Your task to perform on an android device: Go to internet settings Image 0: 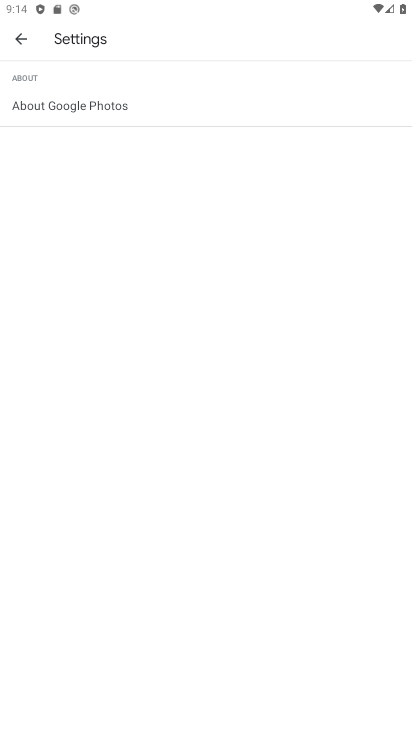
Step 0: press home button
Your task to perform on an android device: Go to internet settings Image 1: 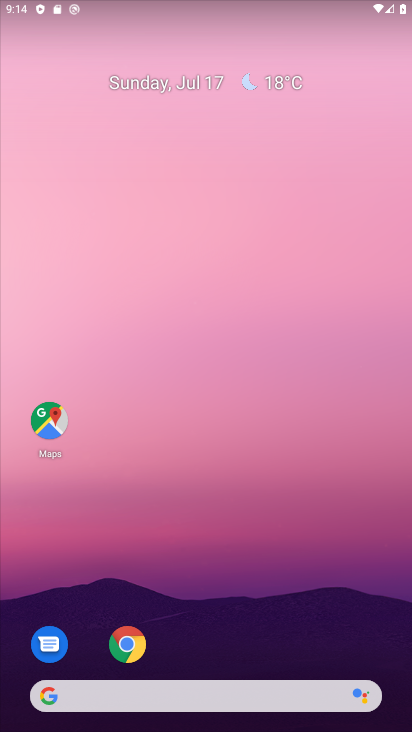
Step 1: drag from (407, 678) to (363, 5)
Your task to perform on an android device: Go to internet settings Image 2: 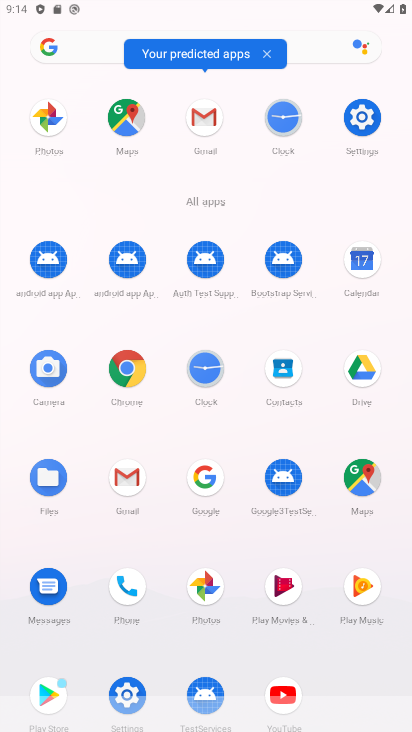
Step 2: click (121, 684)
Your task to perform on an android device: Go to internet settings Image 3: 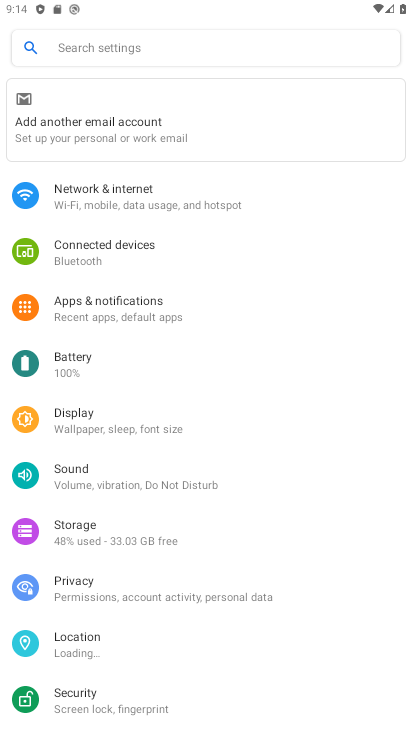
Step 3: click (127, 190)
Your task to perform on an android device: Go to internet settings Image 4: 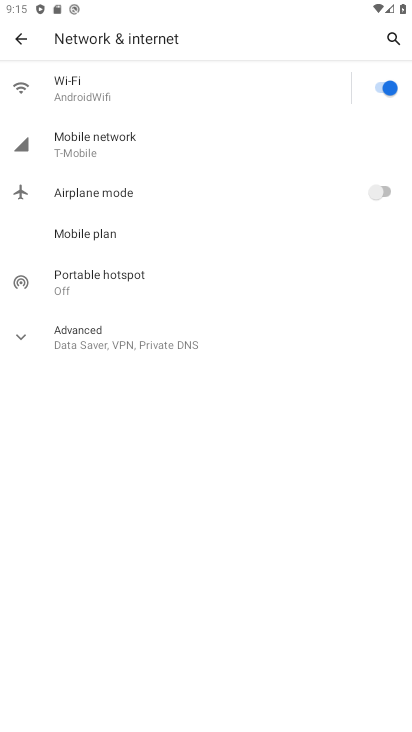
Step 4: click (25, 344)
Your task to perform on an android device: Go to internet settings Image 5: 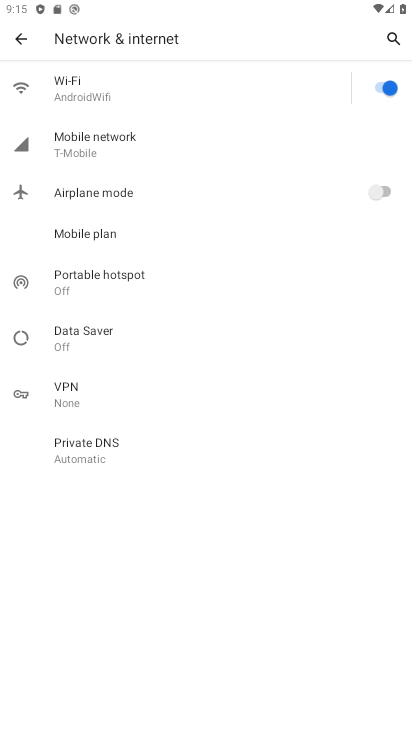
Step 5: task complete